Your task to perform on an android device: add a contact in the contacts app Image 0: 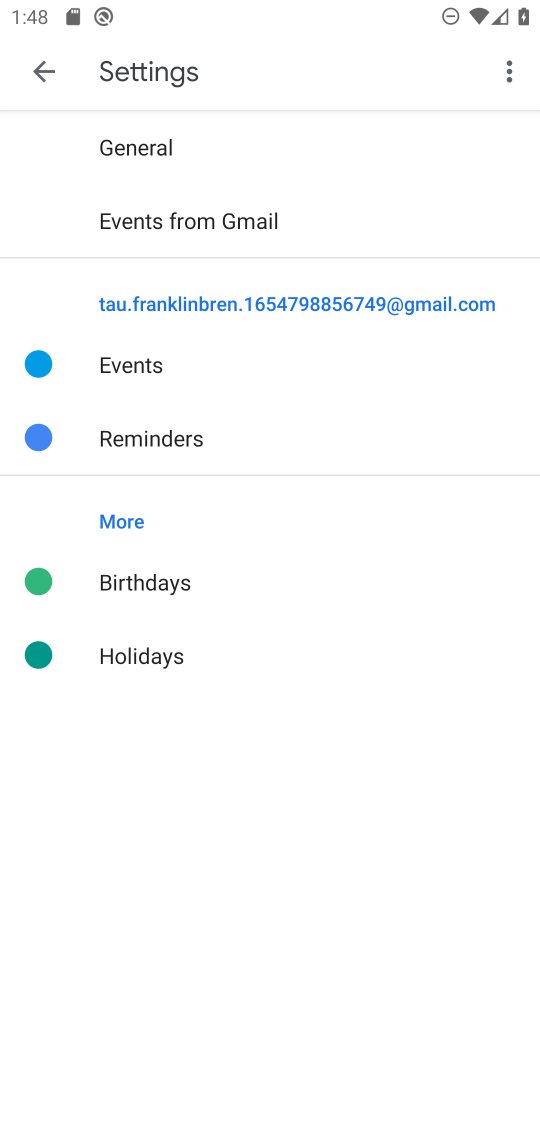
Step 0: press home button
Your task to perform on an android device: add a contact in the contacts app Image 1: 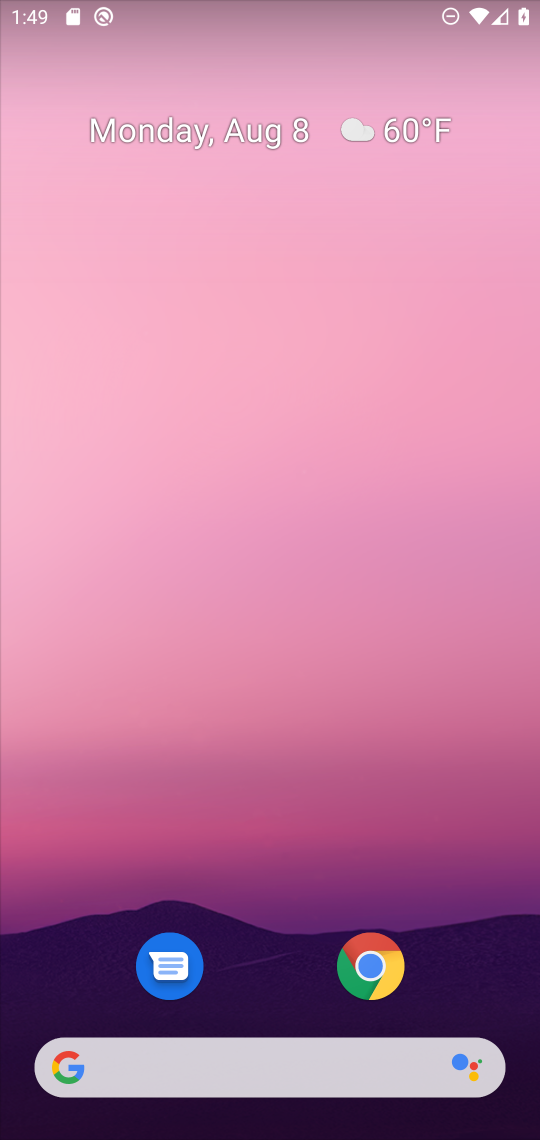
Step 1: drag from (449, 885) to (385, 395)
Your task to perform on an android device: add a contact in the contacts app Image 2: 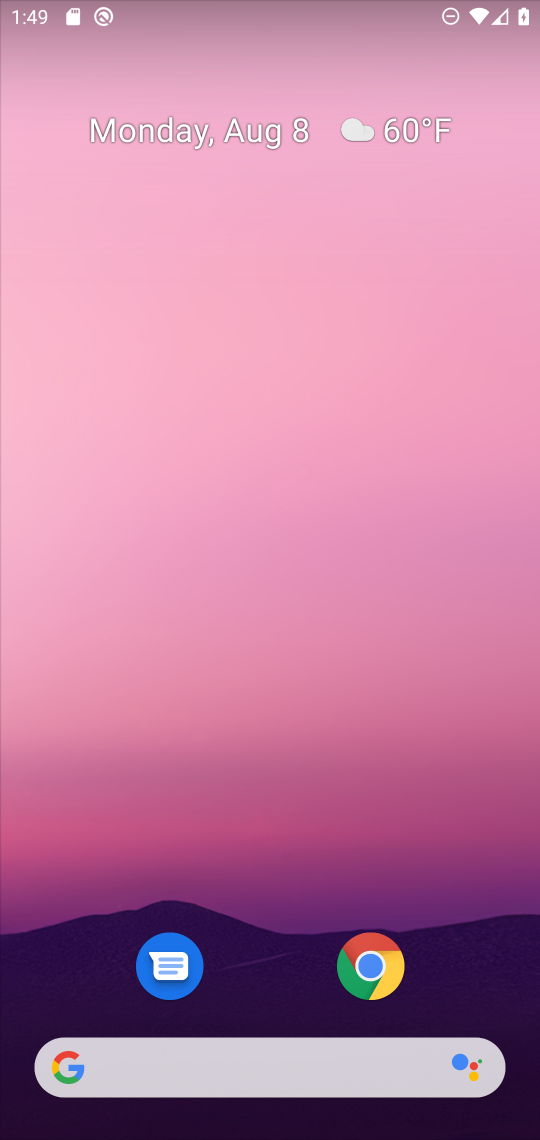
Step 2: drag from (457, 974) to (359, 355)
Your task to perform on an android device: add a contact in the contacts app Image 3: 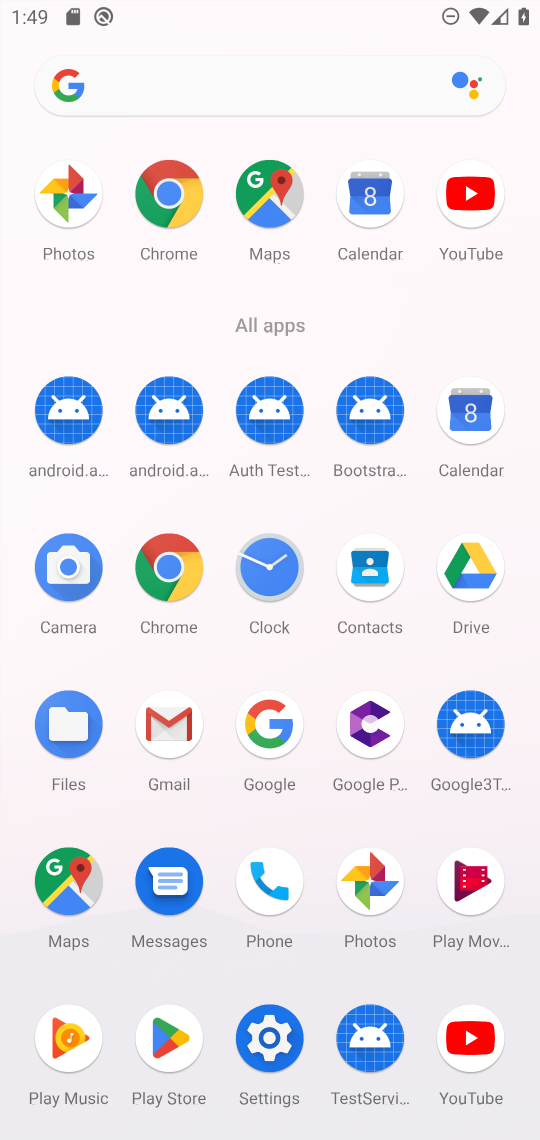
Step 3: click (370, 555)
Your task to perform on an android device: add a contact in the contacts app Image 4: 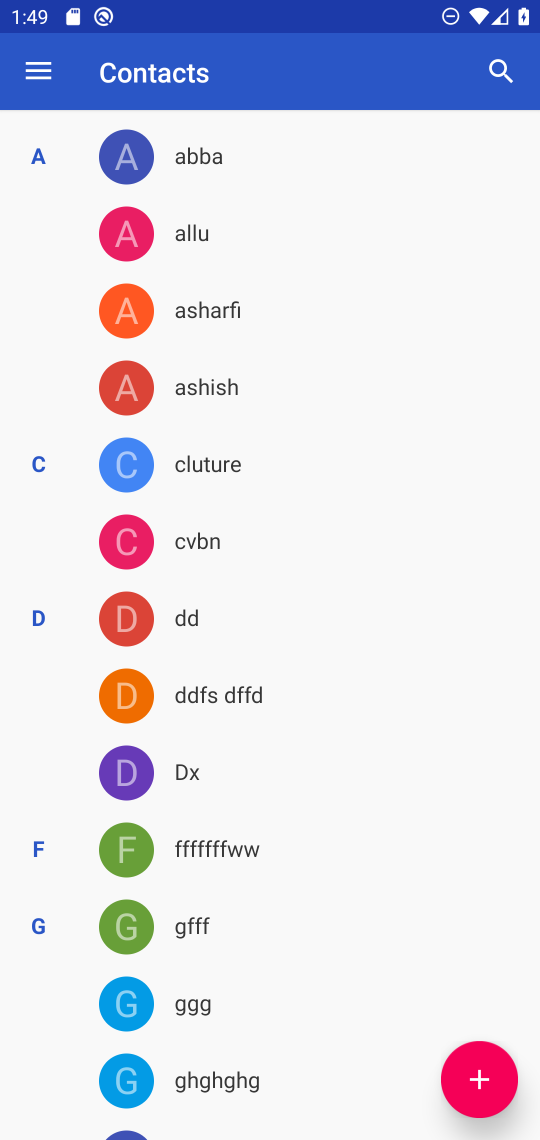
Step 4: click (465, 1081)
Your task to perform on an android device: add a contact in the contacts app Image 5: 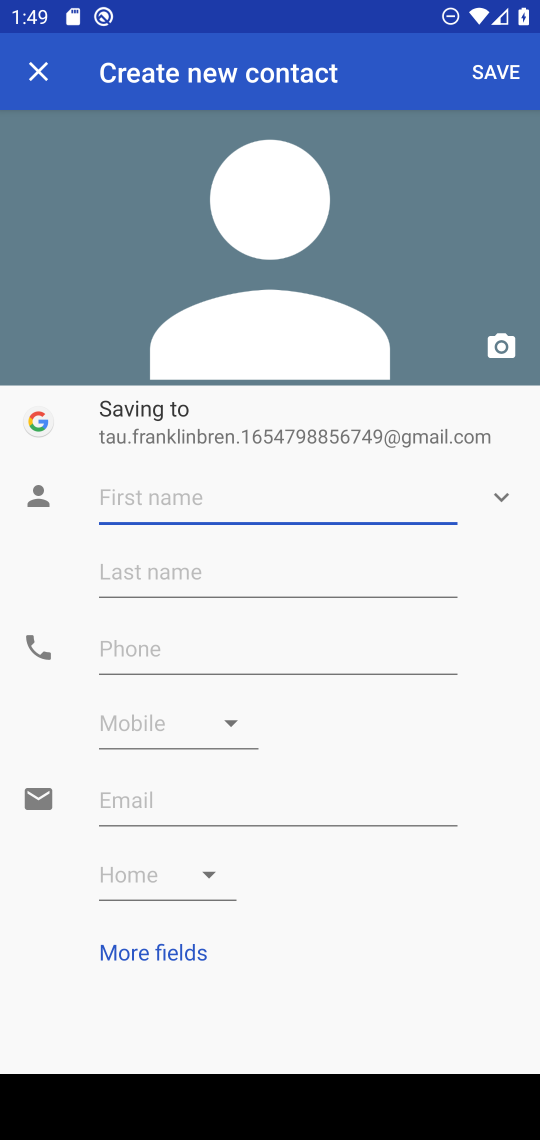
Step 5: type "fggffg"
Your task to perform on an android device: add a contact in the contacts app Image 6: 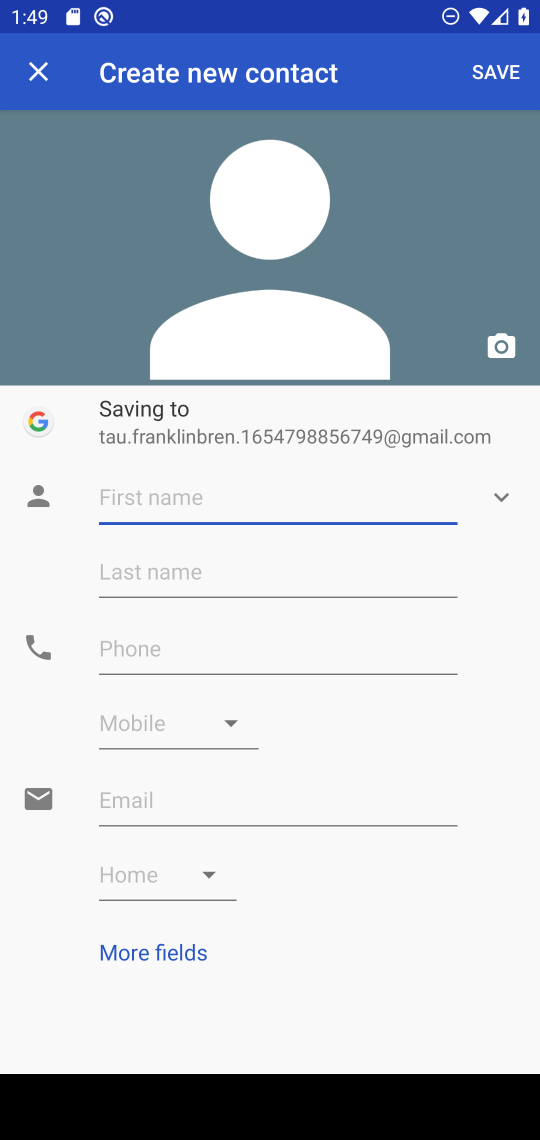
Step 6: click (289, 658)
Your task to perform on an android device: add a contact in the contacts app Image 7: 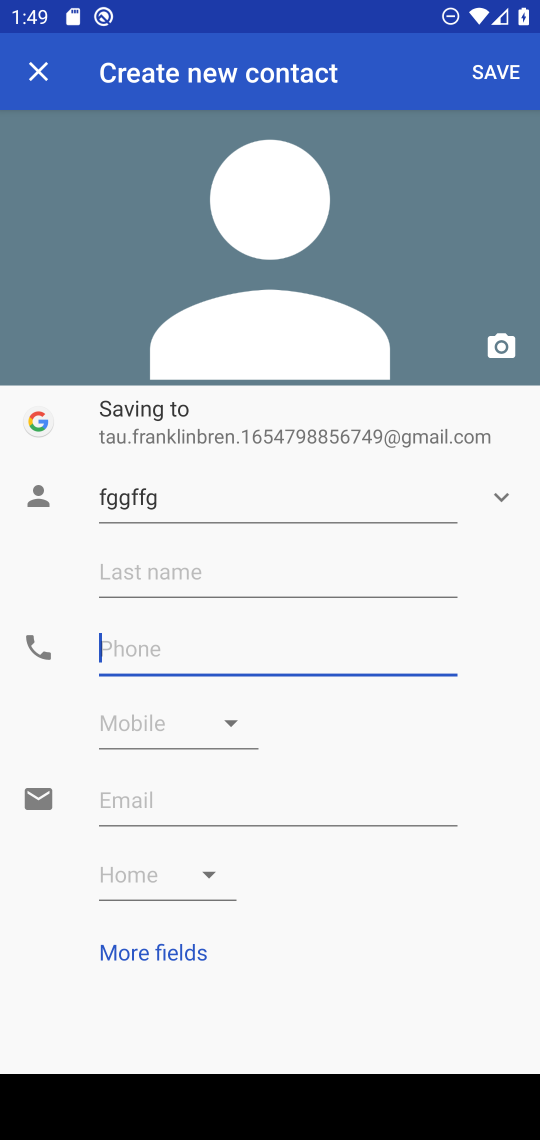
Step 7: type "8886664444"
Your task to perform on an android device: add a contact in the contacts app Image 8: 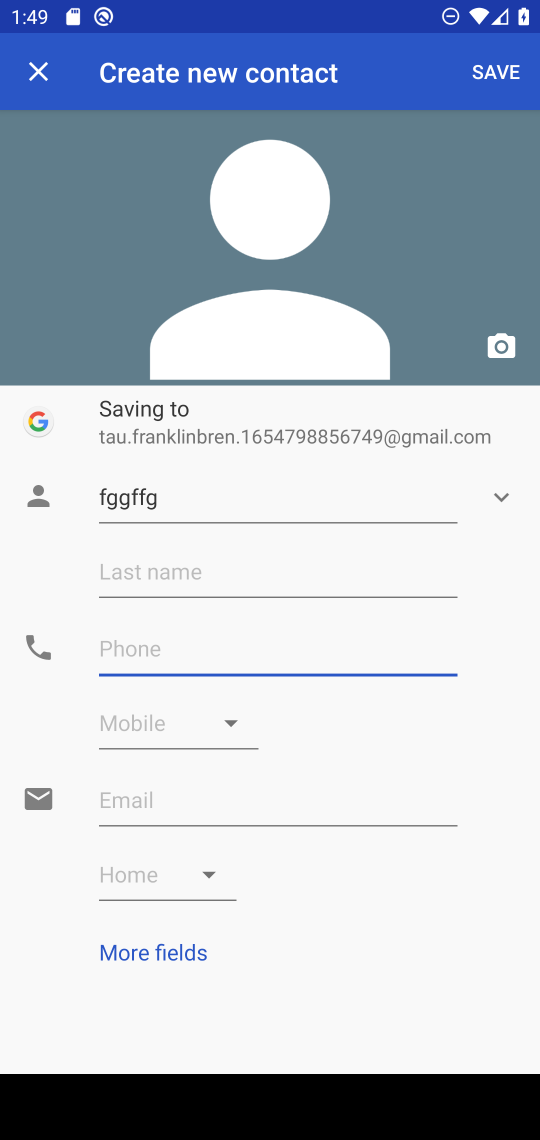
Step 8: click (481, 65)
Your task to perform on an android device: add a contact in the contacts app Image 9: 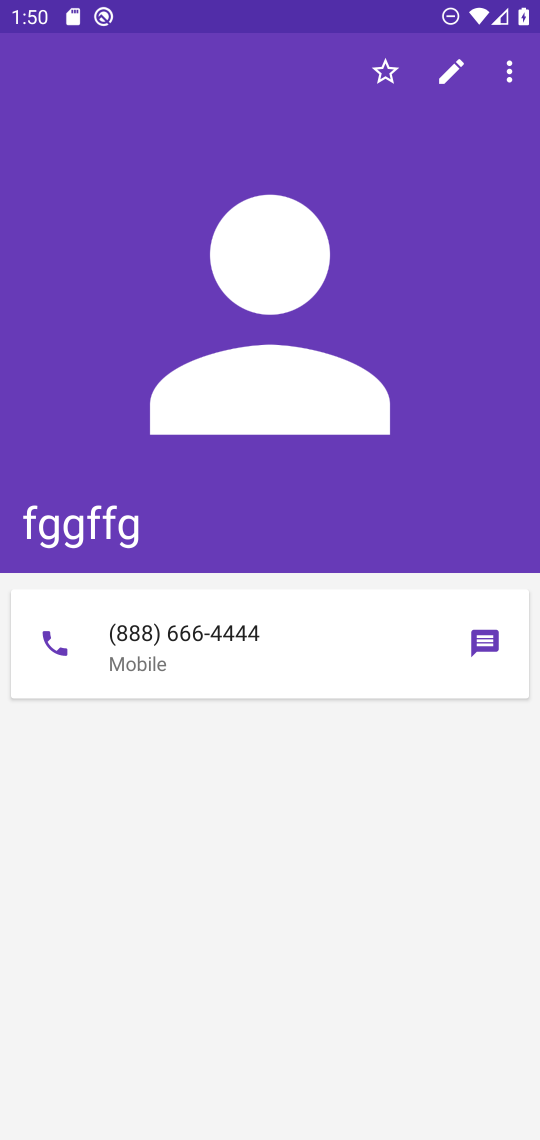
Step 9: task complete